Your task to perform on an android device: allow notifications from all sites in the chrome app Image 0: 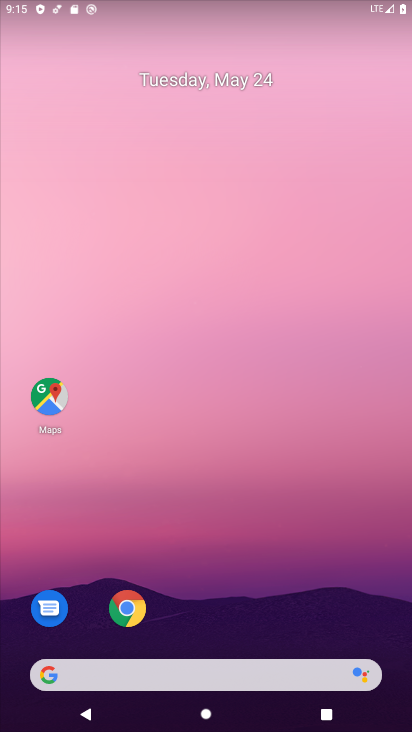
Step 0: drag from (199, 624) to (207, 8)
Your task to perform on an android device: allow notifications from all sites in the chrome app Image 1: 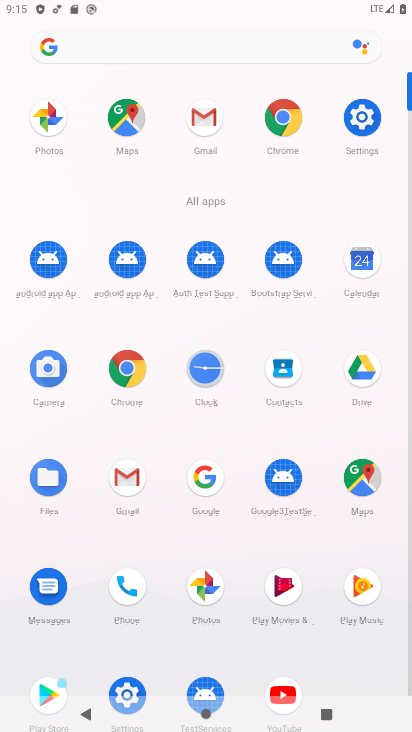
Step 1: click (286, 130)
Your task to perform on an android device: allow notifications from all sites in the chrome app Image 2: 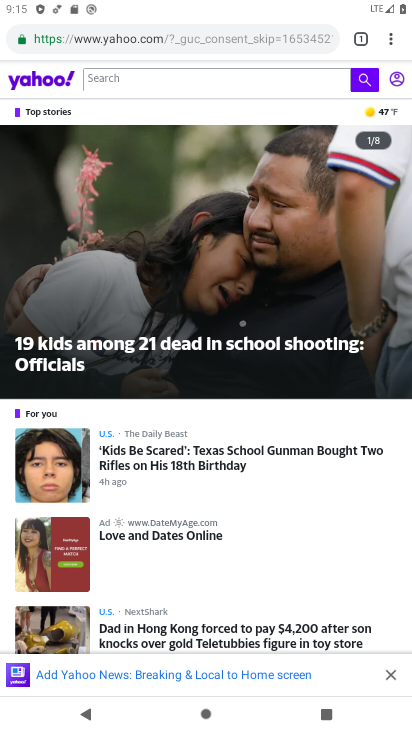
Step 2: click (391, 39)
Your task to perform on an android device: allow notifications from all sites in the chrome app Image 3: 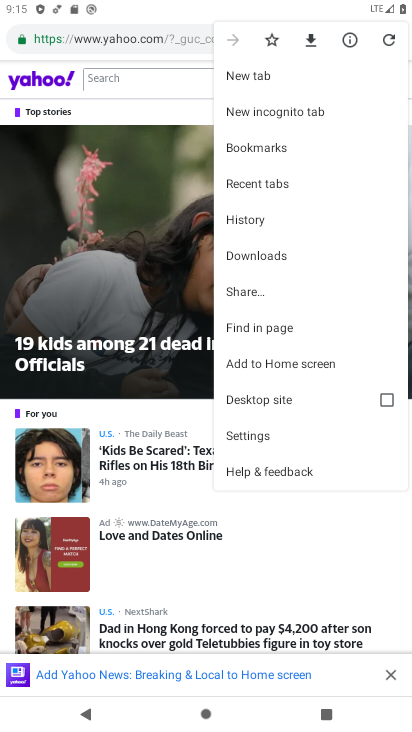
Step 3: click (266, 435)
Your task to perform on an android device: allow notifications from all sites in the chrome app Image 4: 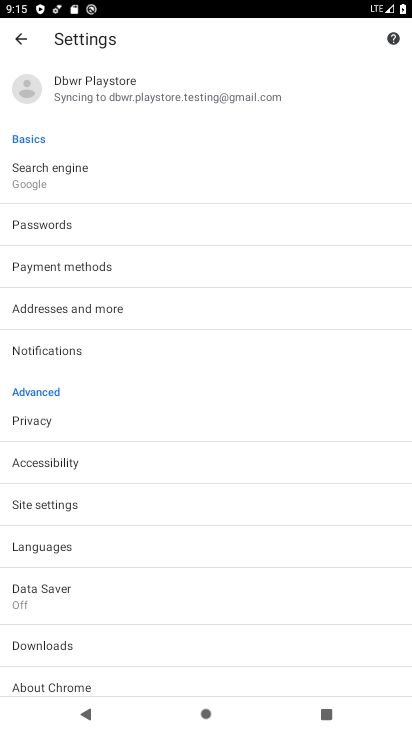
Step 4: click (57, 349)
Your task to perform on an android device: allow notifications from all sites in the chrome app Image 5: 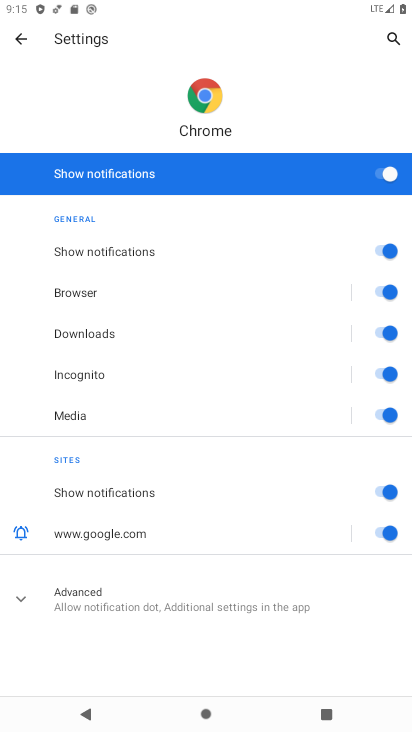
Step 5: task complete